Your task to perform on an android device: turn off smart reply in the gmail app Image 0: 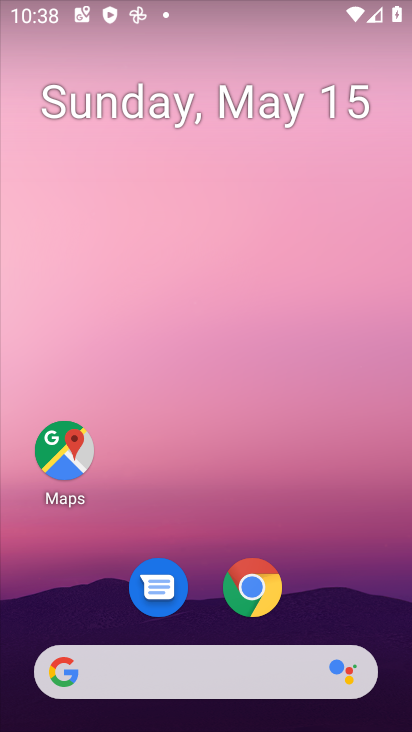
Step 0: drag from (392, 633) to (280, 96)
Your task to perform on an android device: turn off smart reply in the gmail app Image 1: 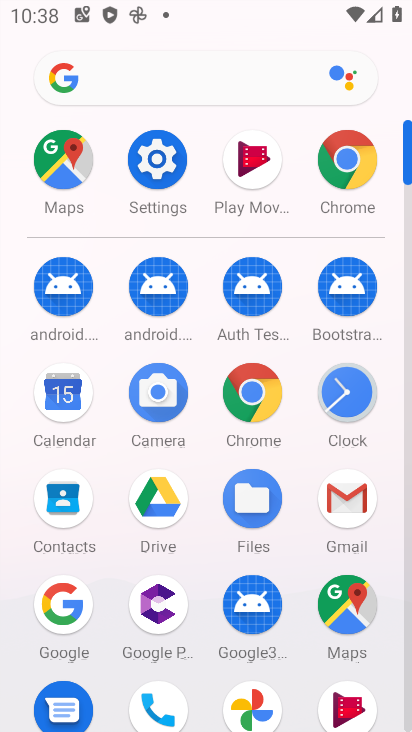
Step 1: click (361, 494)
Your task to perform on an android device: turn off smart reply in the gmail app Image 2: 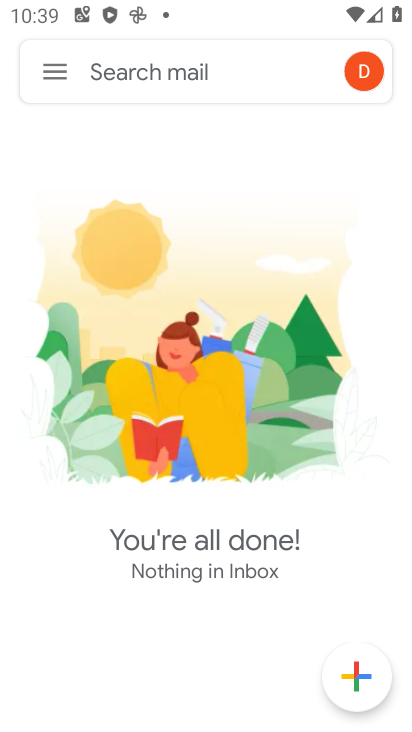
Step 2: click (56, 75)
Your task to perform on an android device: turn off smart reply in the gmail app Image 3: 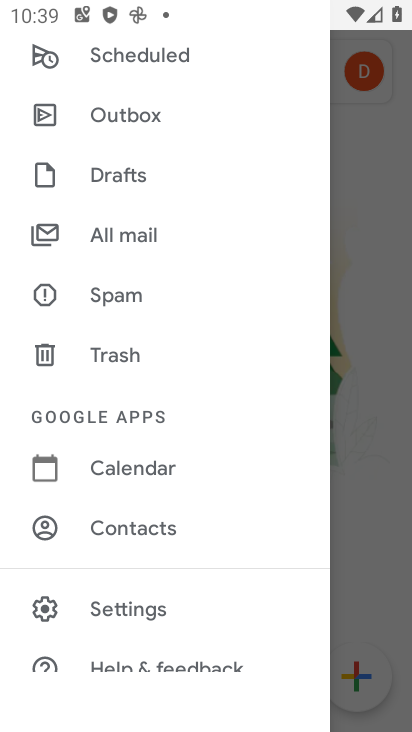
Step 3: click (139, 605)
Your task to perform on an android device: turn off smart reply in the gmail app Image 4: 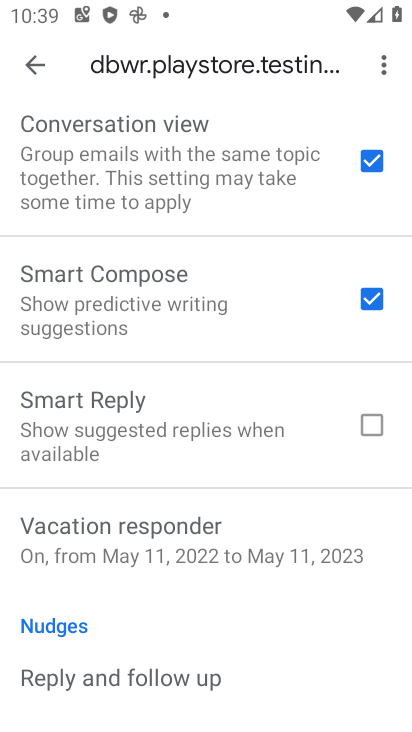
Step 4: task complete